Your task to perform on an android device: open app "Skype" Image 0: 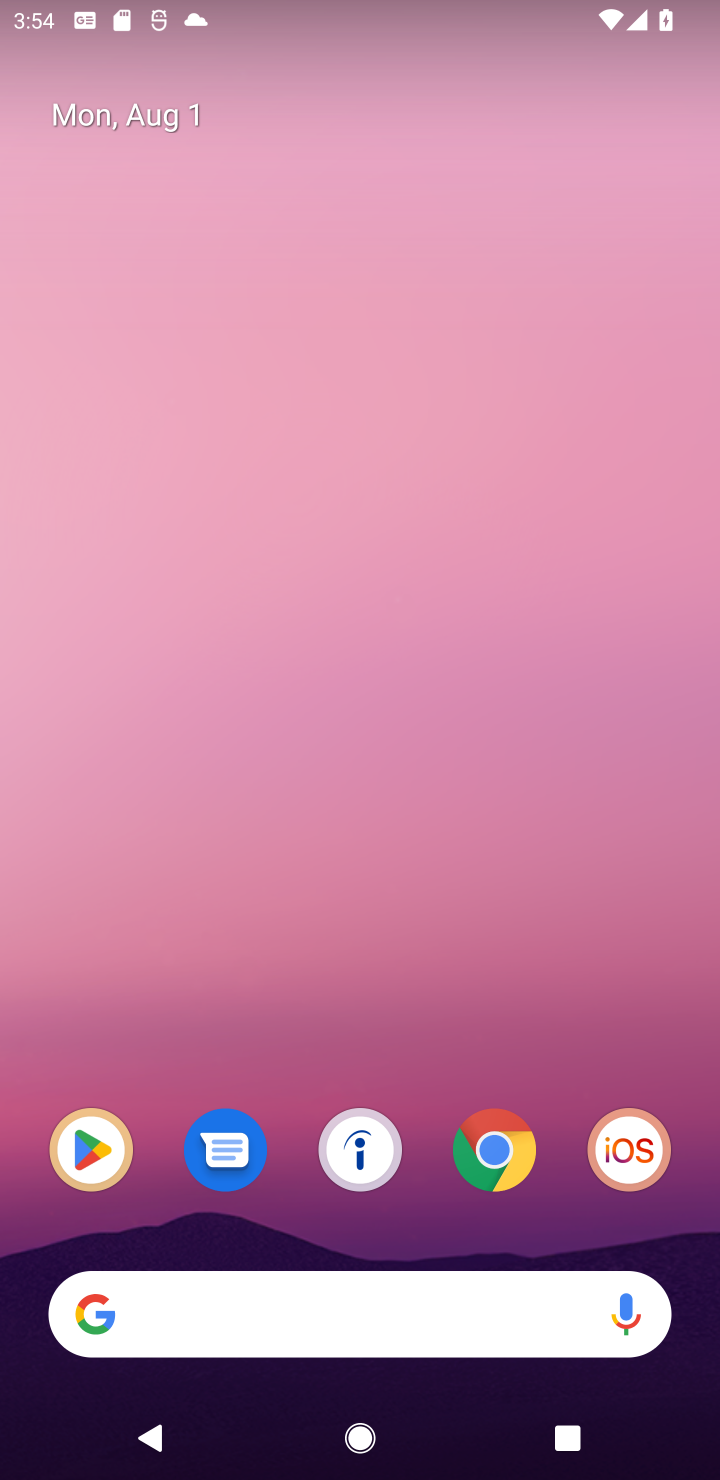
Step 0: drag from (429, 1230) to (505, 0)
Your task to perform on an android device: open app "Skype" Image 1: 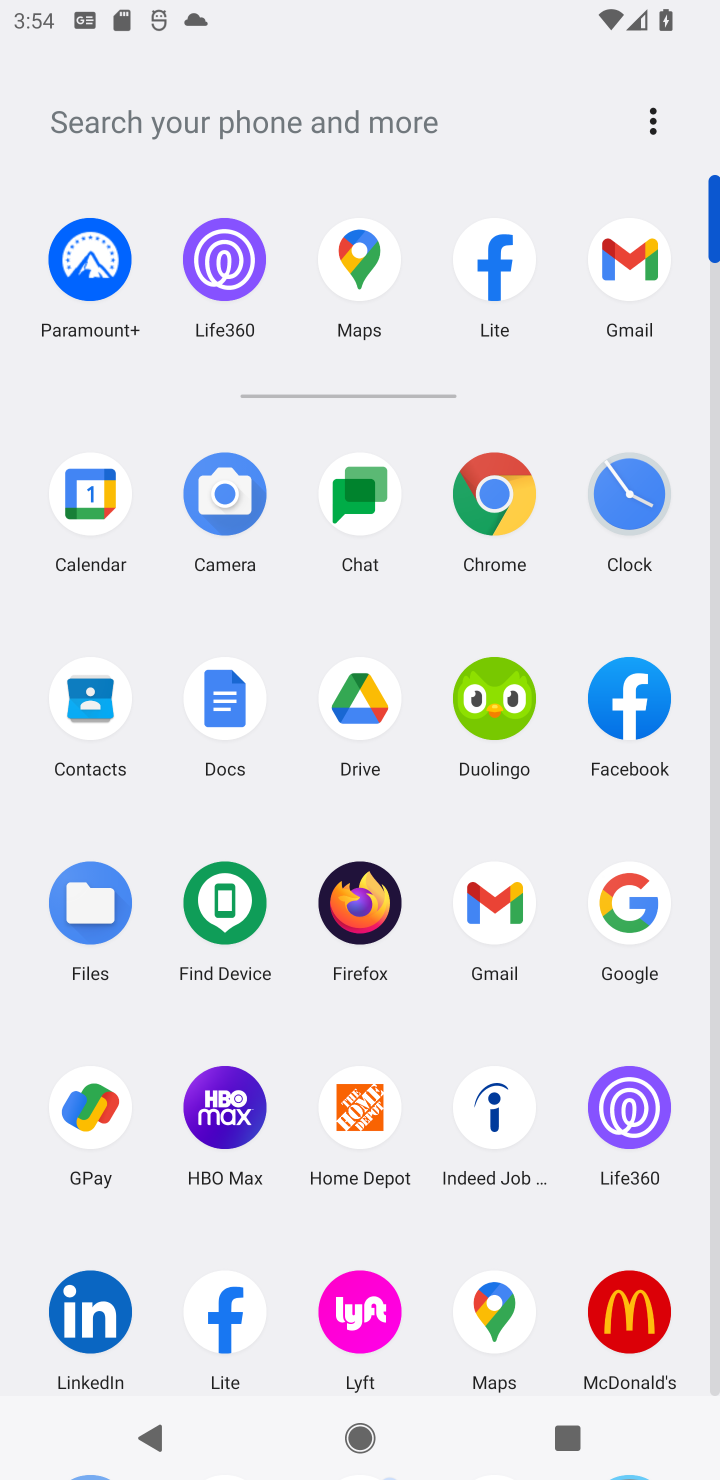
Step 1: press home button
Your task to perform on an android device: open app "Skype" Image 2: 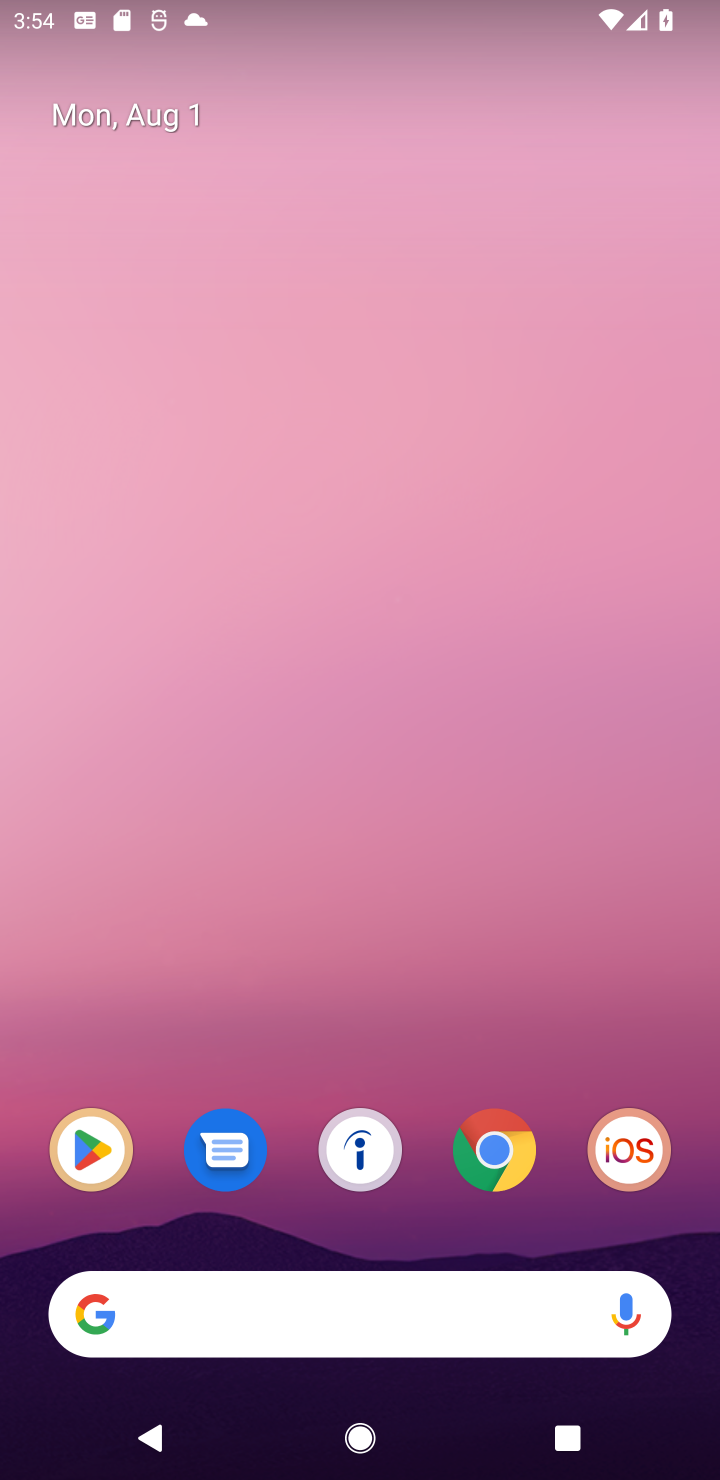
Step 2: click (130, 1152)
Your task to perform on an android device: open app "Skype" Image 3: 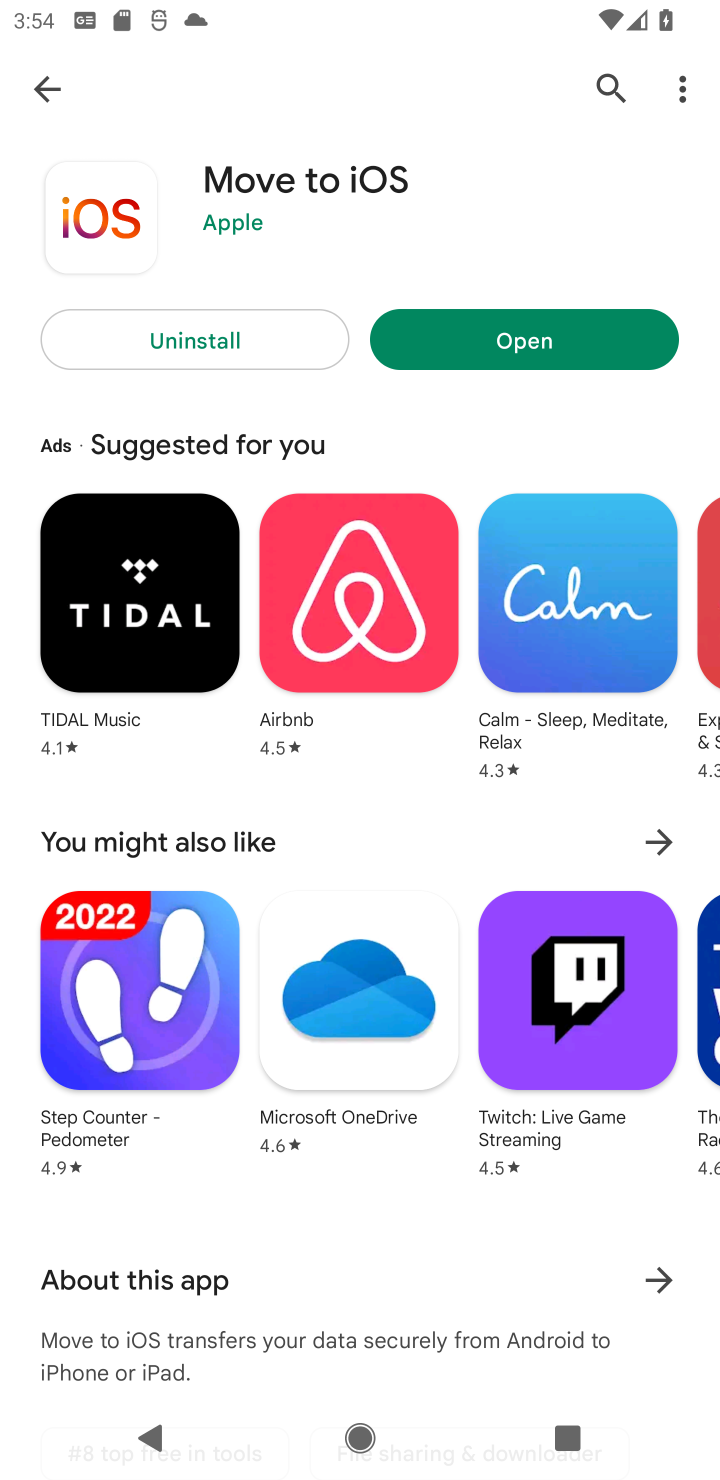
Step 3: click (603, 93)
Your task to perform on an android device: open app "Skype" Image 4: 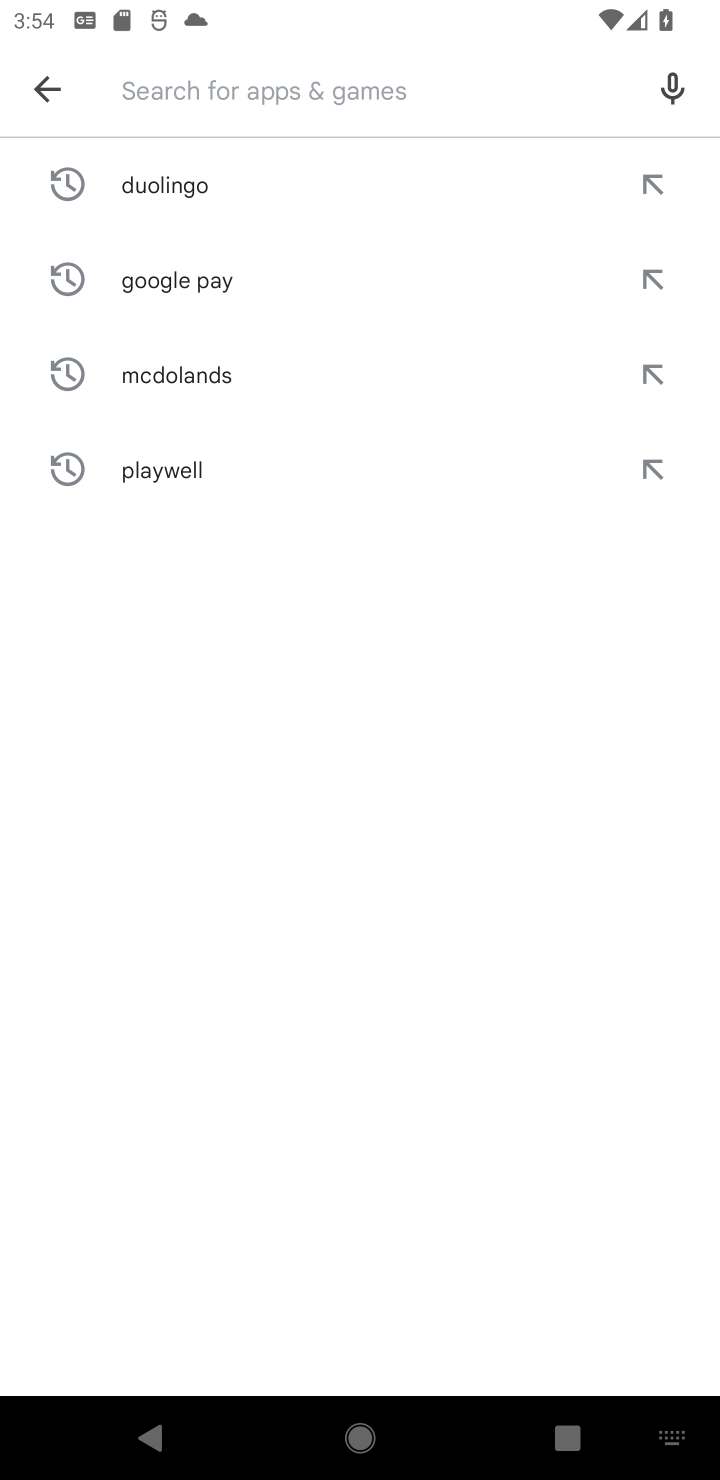
Step 4: type "skype"
Your task to perform on an android device: open app "Skype" Image 5: 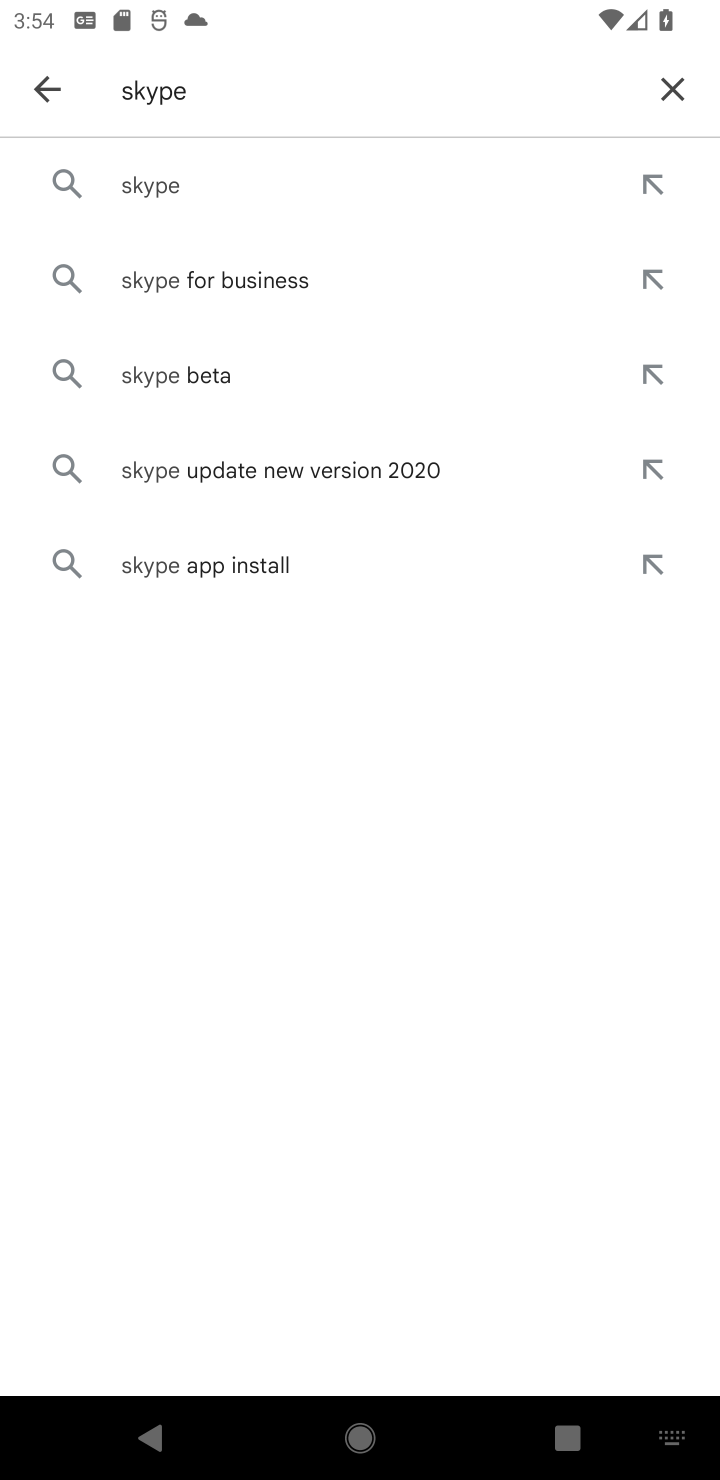
Step 5: click (339, 194)
Your task to perform on an android device: open app "Skype" Image 6: 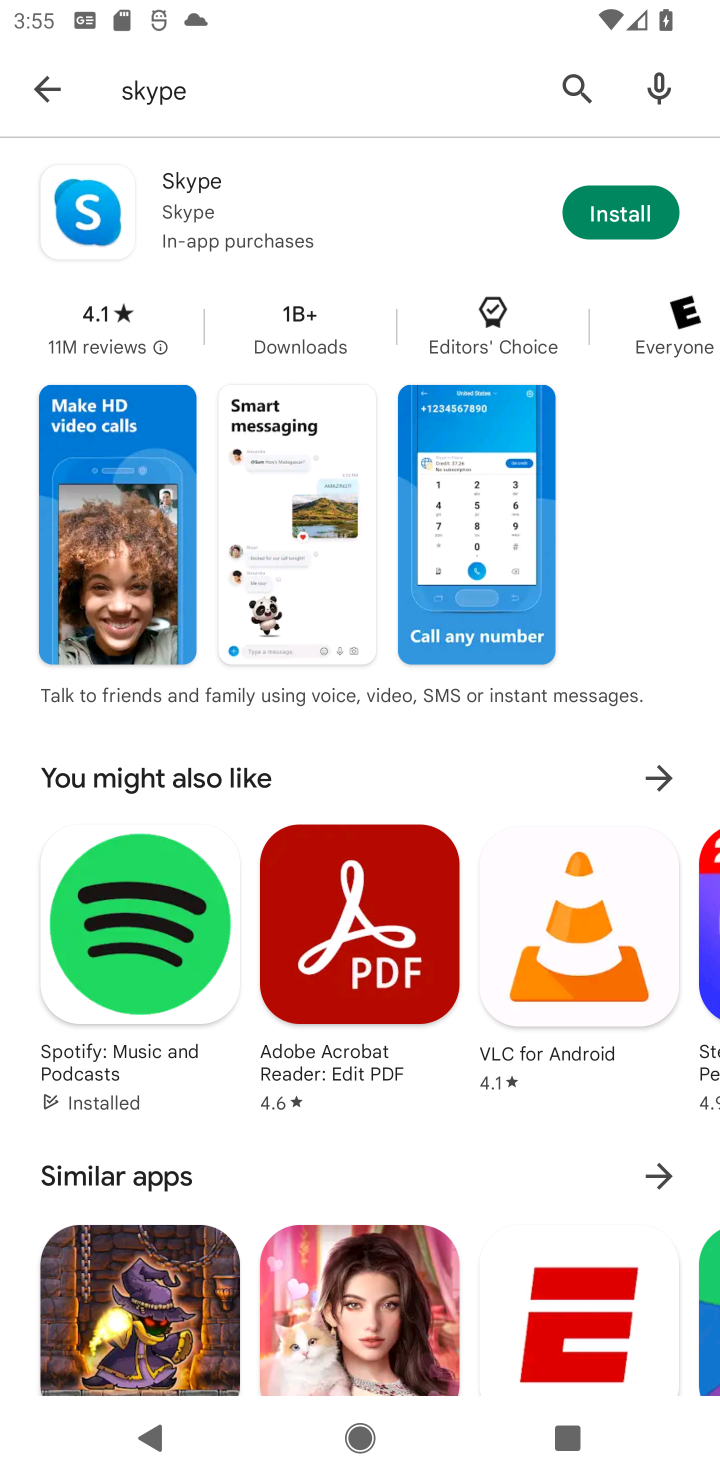
Step 6: click (560, 201)
Your task to perform on an android device: open app "Skype" Image 7: 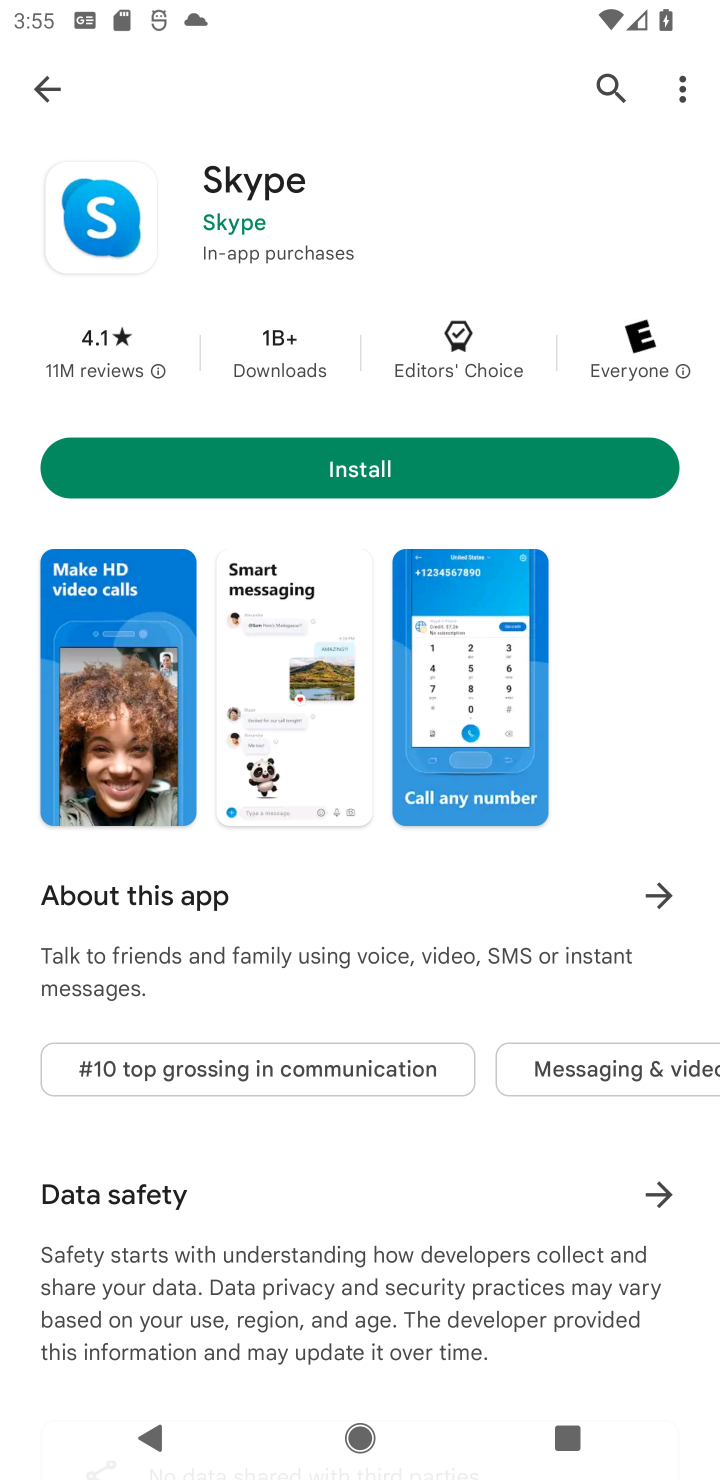
Step 7: click (572, 471)
Your task to perform on an android device: open app "Skype" Image 8: 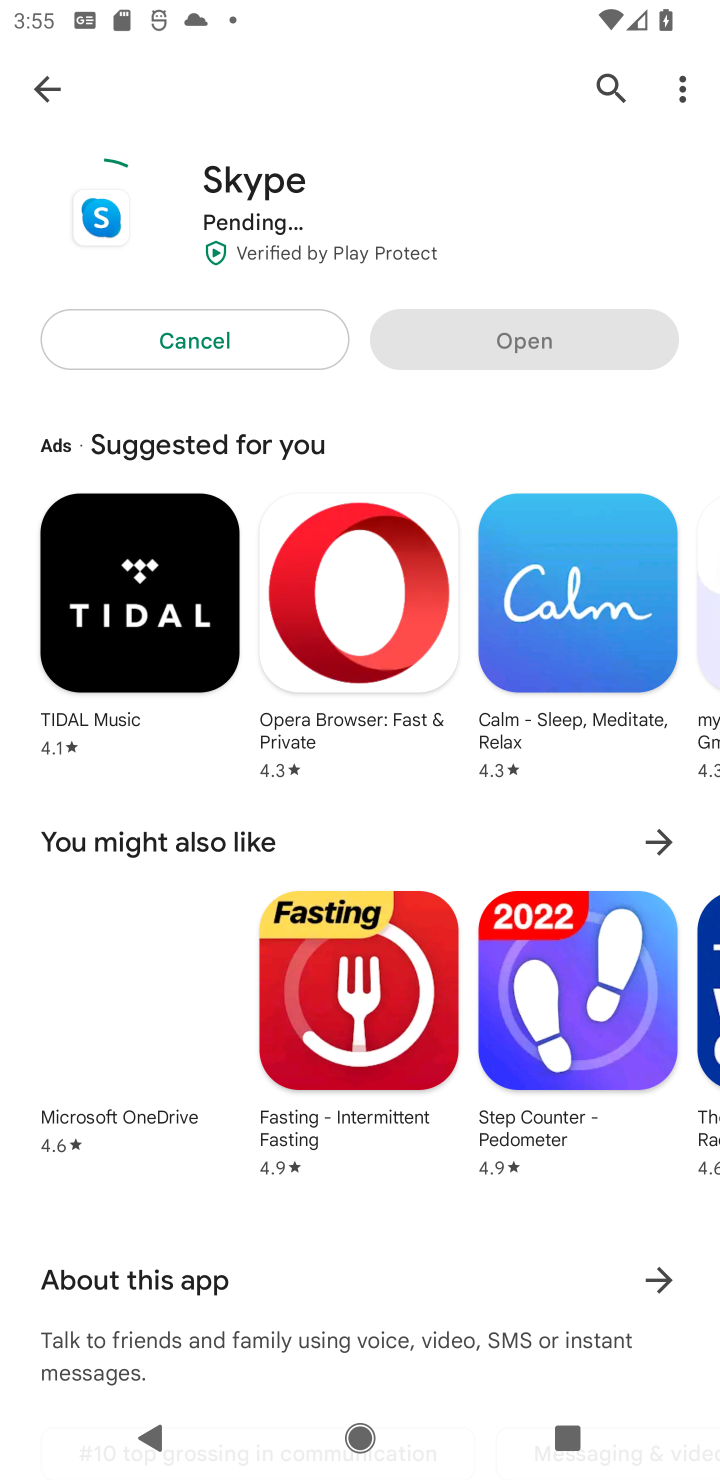
Step 8: task complete